Your task to perform on an android device: refresh tabs in the chrome app Image 0: 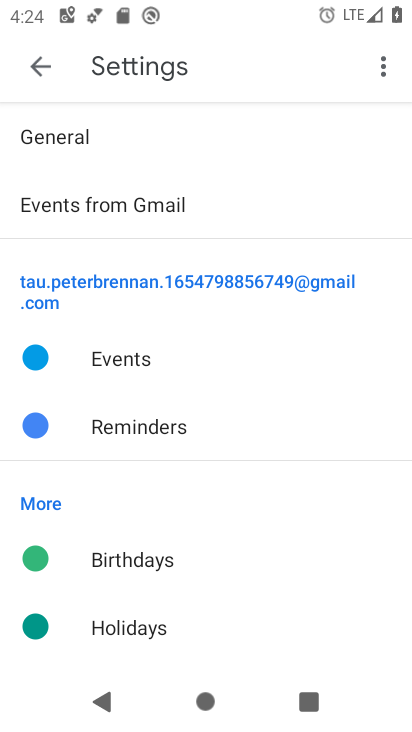
Step 0: press home button
Your task to perform on an android device: refresh tabs in the chrome app Image 1: 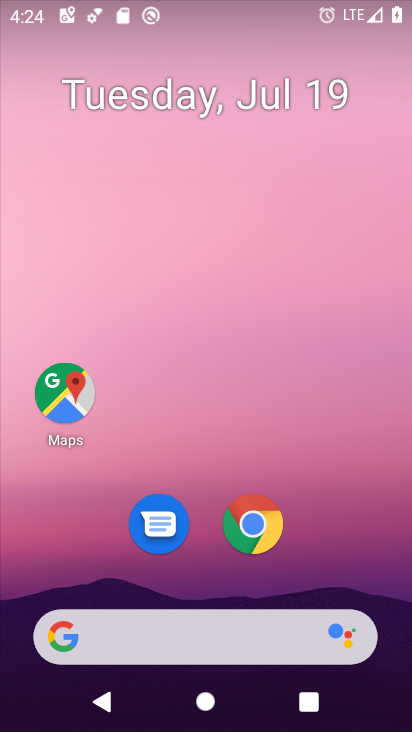
Step 1: click (260, 523)
Your task to perform on an android device: refresh tabs in the chrome app Image 2: 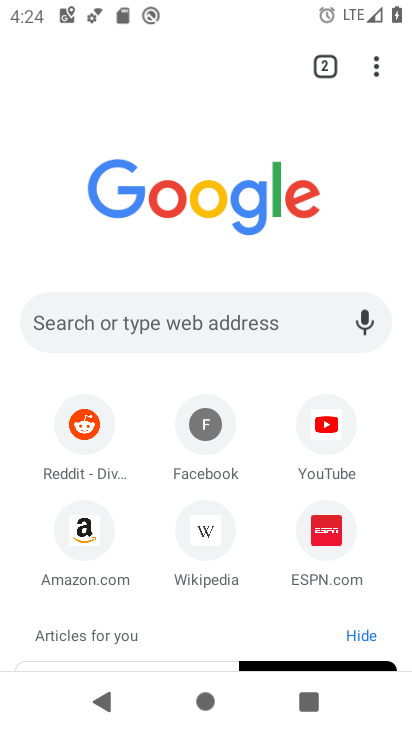
Step 2: click (376, 61)
Your task to perform on an android device: refresh tabs in the chrome app Image 3: 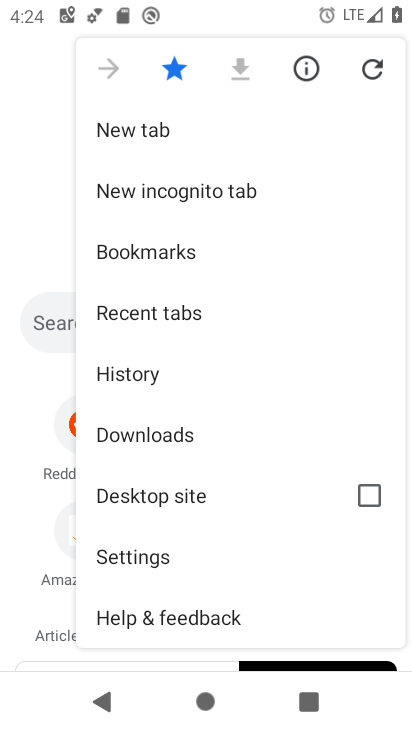
Step 3: click (369, 68)
Your task to perform on an android device: refresh tabs in the chrome app Image 4: 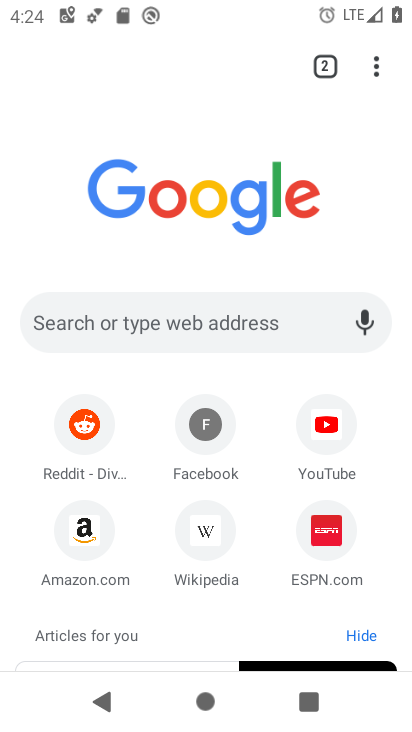
Step 4: task complete